Your task to perform on an android device: Open location settings Image 0: 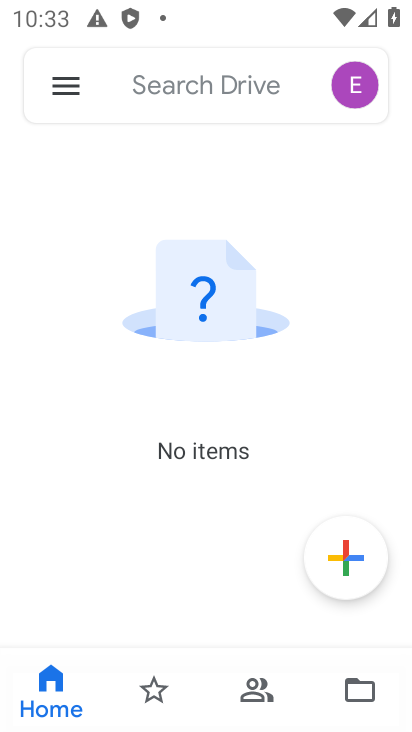
Step 0: press back button
Your task to perform on an android device: Open location settings Image 1: 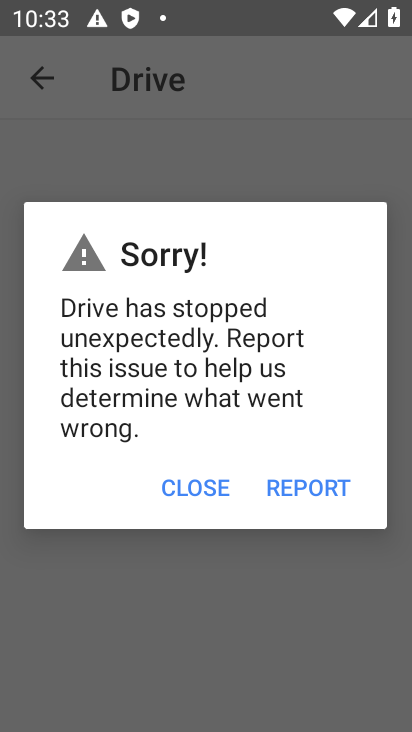
Step 1: press home button
Your task to perform on an android device: Open location settings Image 2: 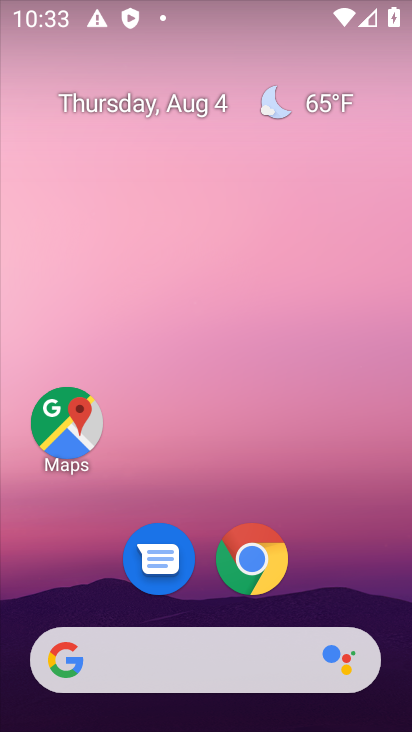
Step 2: drag from (216, 636) to (152, 67)
Your task to perform on an android device: Open location settings Image 3: 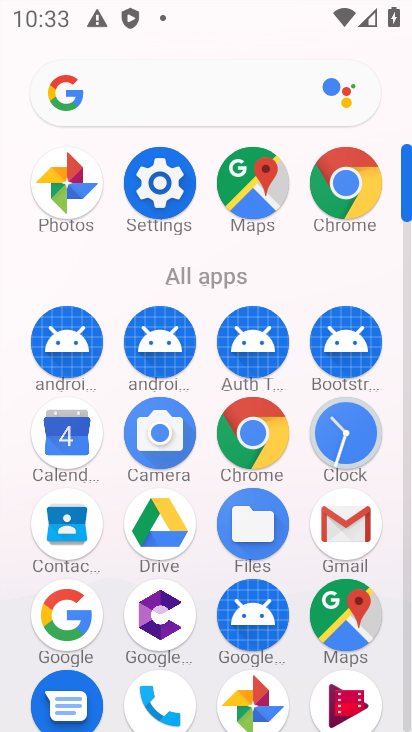
Step 3: click (146, 200)
Your task to perform on an android device: Open location settings Image 4: 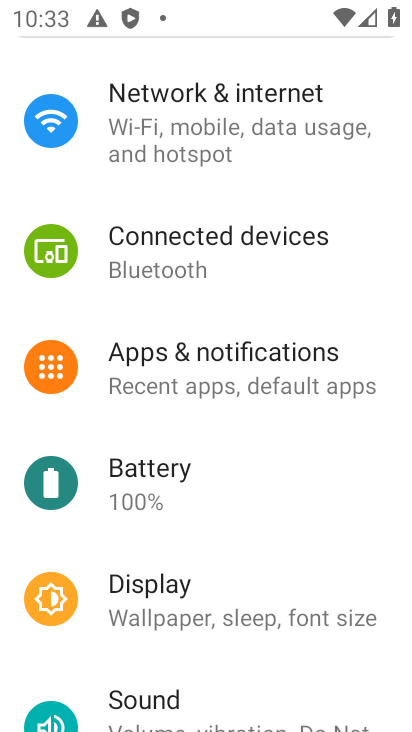
Step 4: drag from (233, 603) to (189, 197)
Your task to perform on an android device: Open location settings Image 5: 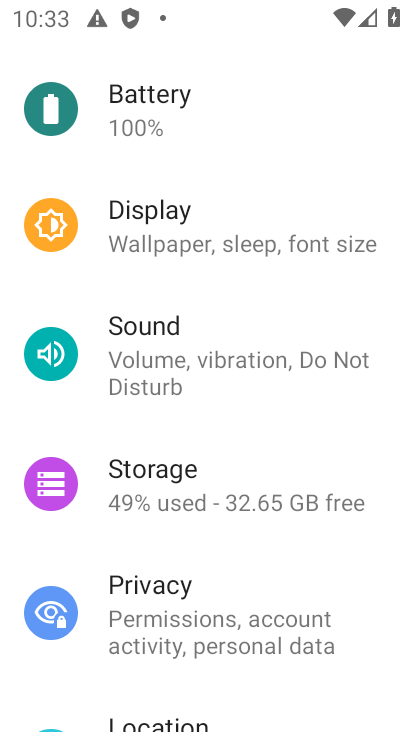
Step 5: drag from (211, 625) to (180, 225)
Your task to perform on an android device: Open location settings Image 6: 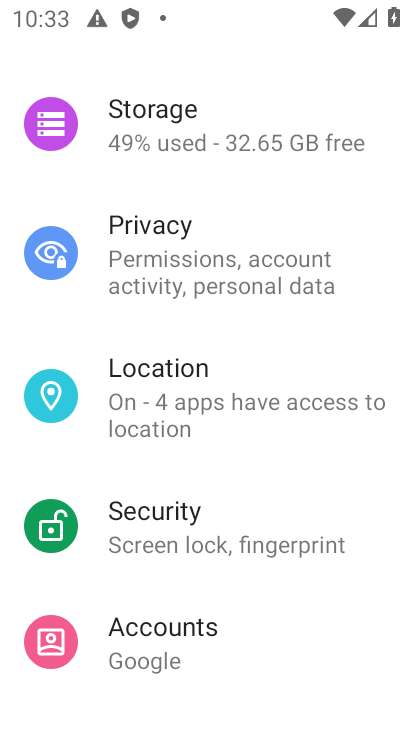
Step 6: click (180, 420)
Your task to perform on an android device: Open location settings Image 7: 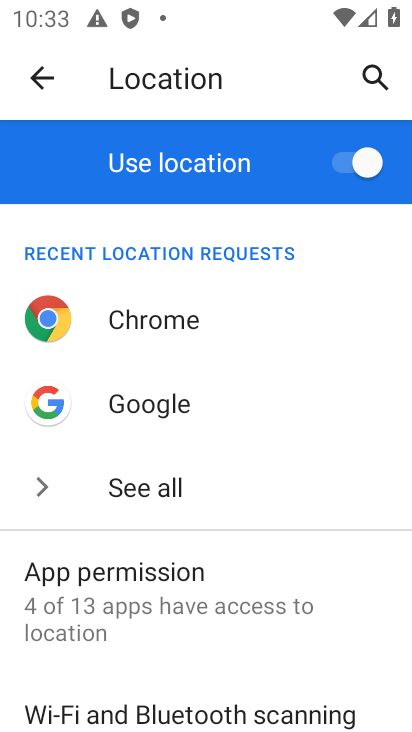
Step 7: task complete